Your task to perform on an android device: Show me the alarms in the clock app Image 0: 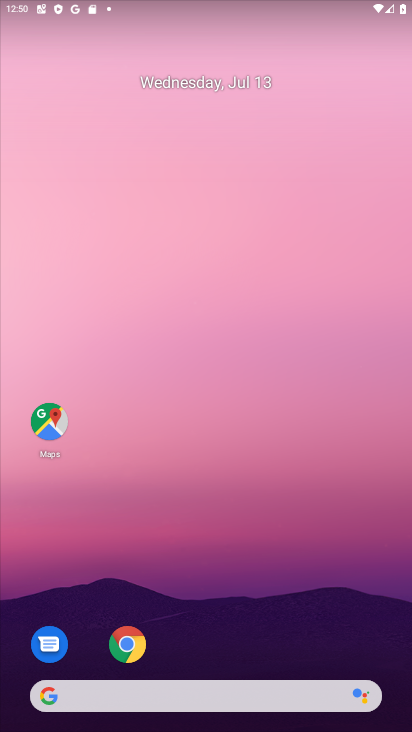
Step 0: drag from (298, 657) to (243, 99)
Your task to perform on an android device: Show me the alarms in the clock app Image 1: 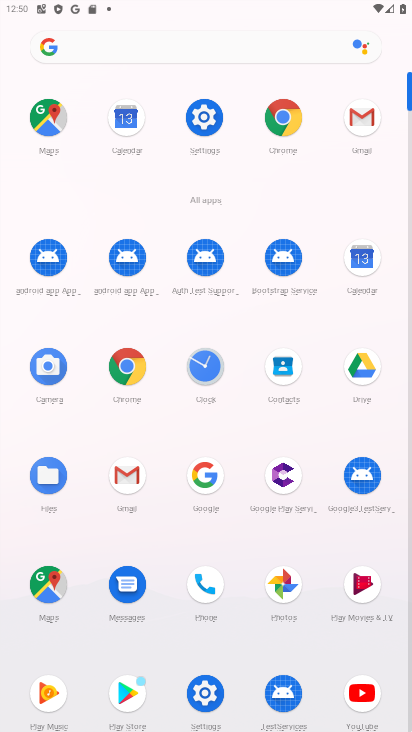
Step 1: click (206, 356)
Your task to perform on an android device: Show me the alarms in the clock app Image 2: 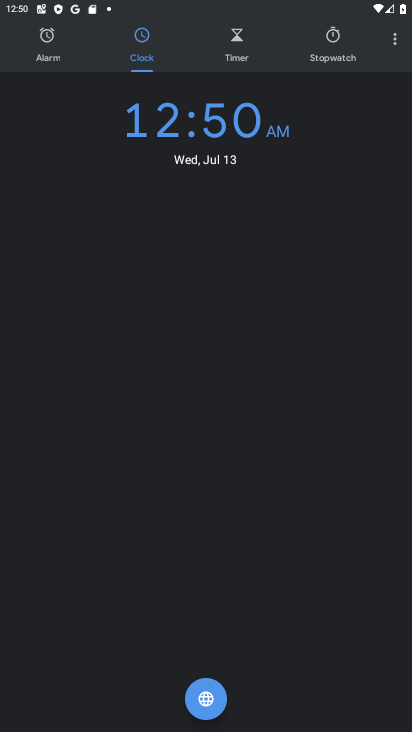
Step 2: click (67, 52)
Your task to perform on an android device: Show me the alarms in the clock app Image 3: 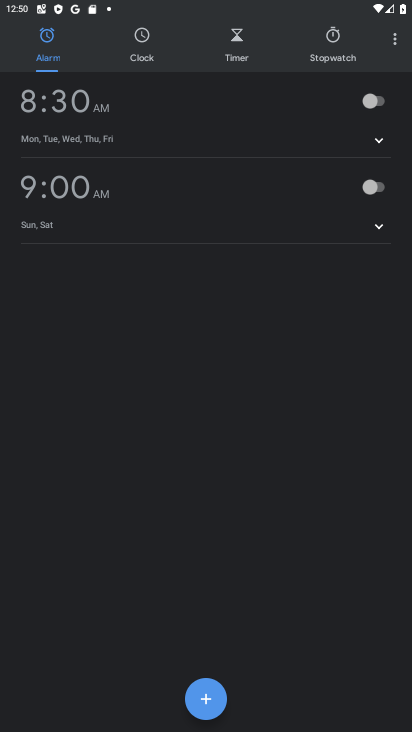
Step 3: task complete